Your task to perform on an android device: Open Amazon Image 0: 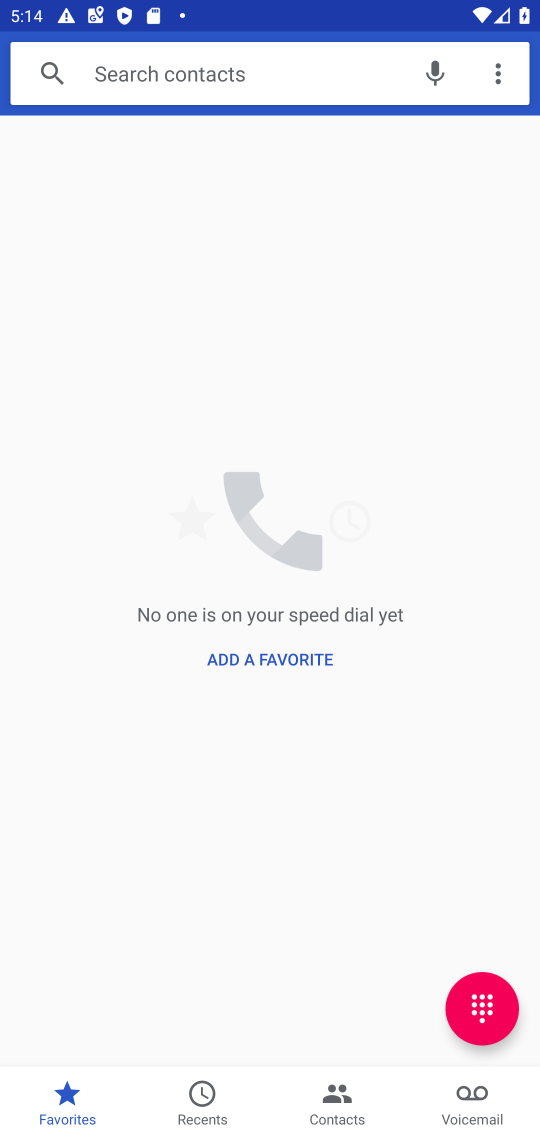
Step 0: press home button
Your task to perform on an android device: Open Amazon Image 1: 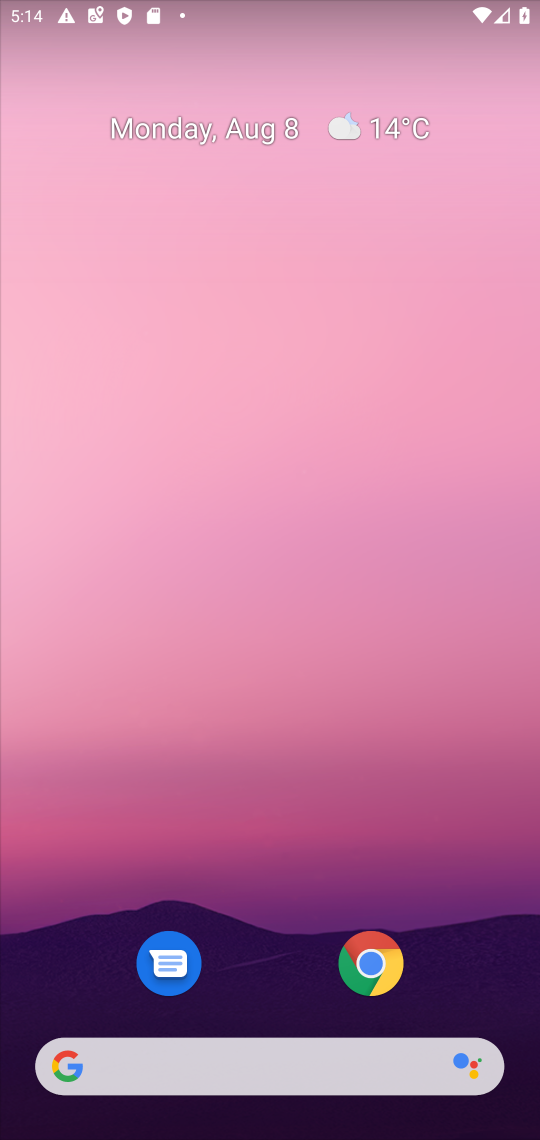
Step 1: click (360, 959)
Your task to perform on an android device: Open Amazon Image 2: 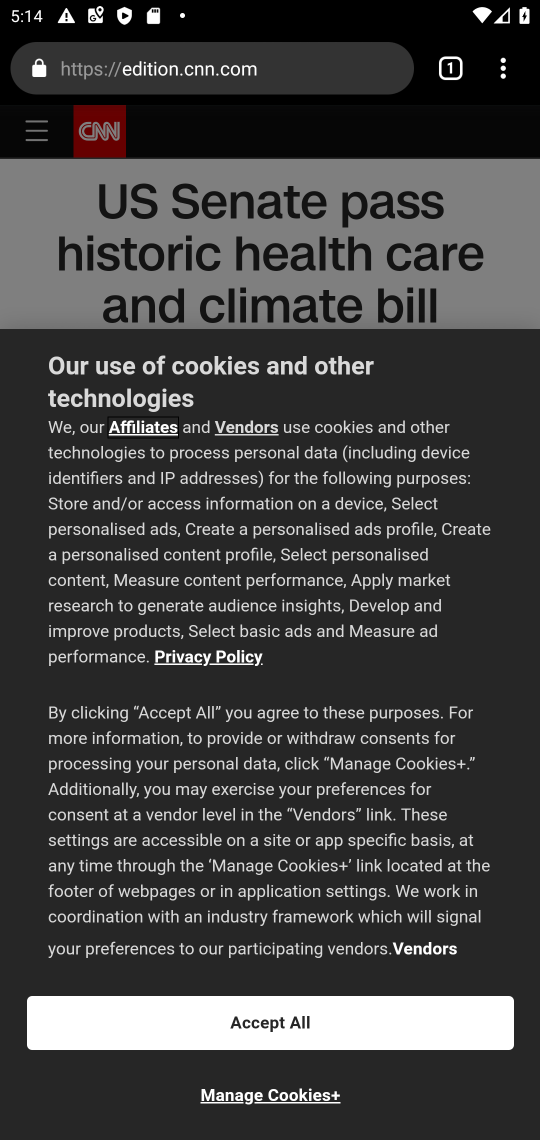
Step 2: click (242, 80)
Your task to perform on an android device: Open Amazon Image 3: 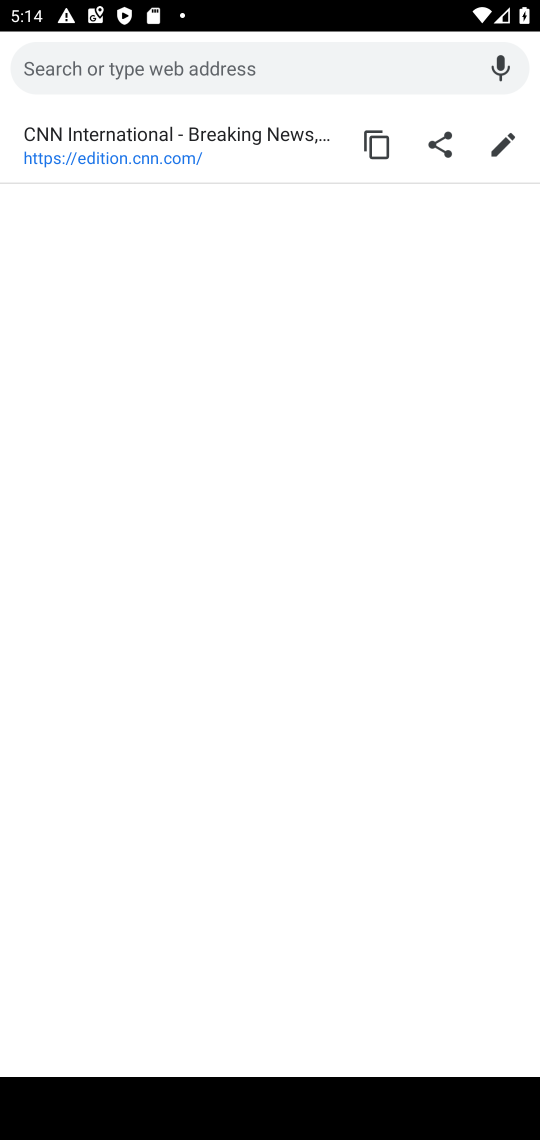
Step 3: type "amazon"
Your task to perform on an android device: Open Amazon Image 4: 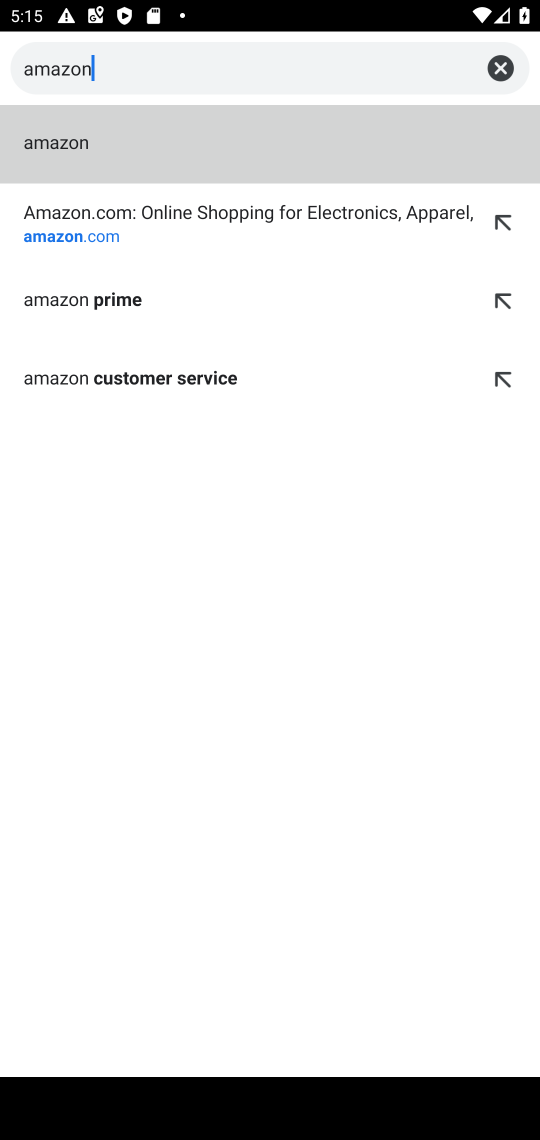
Step 4: click (364, 137)
Your task to perform on an android device: Open Amazon Image 5: 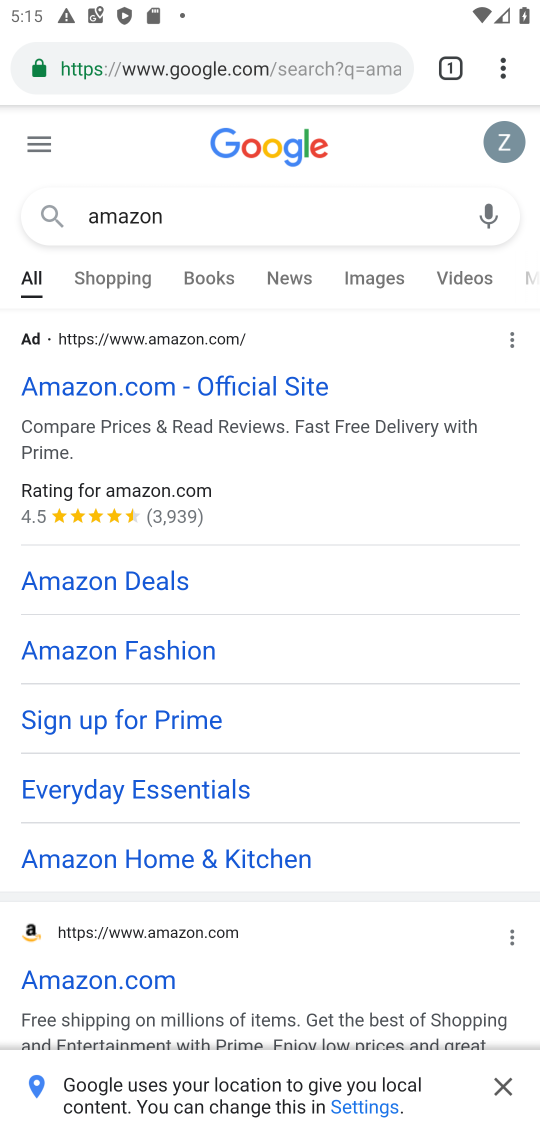
Step 5: click (161, 374)
Your task to perform on an android device: Open Amazon Image 6: 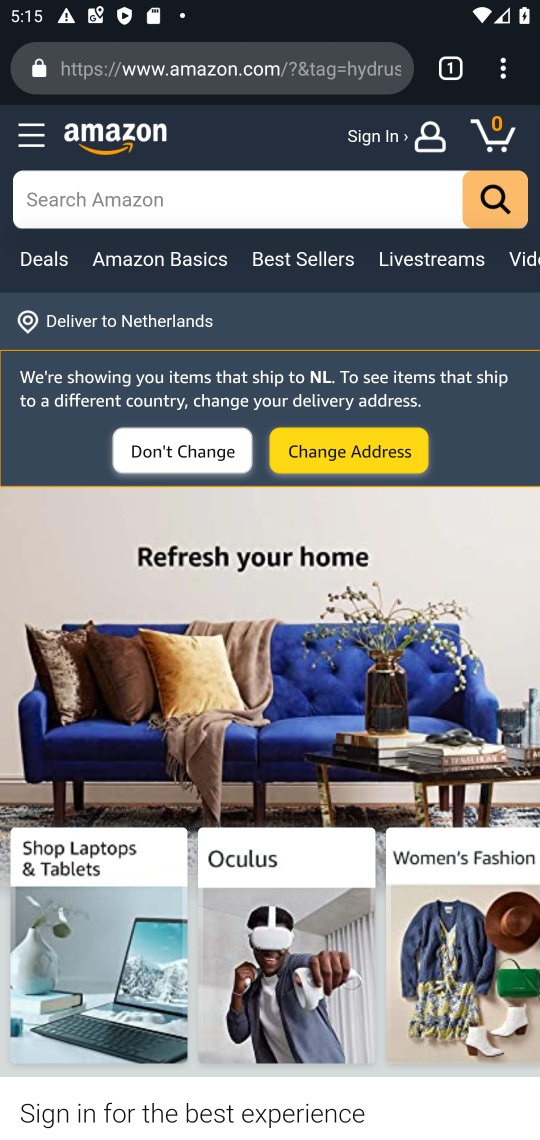
Step 6: task complete